Your task to perform on an android device: add a label to a message in the gmail app Image 0: 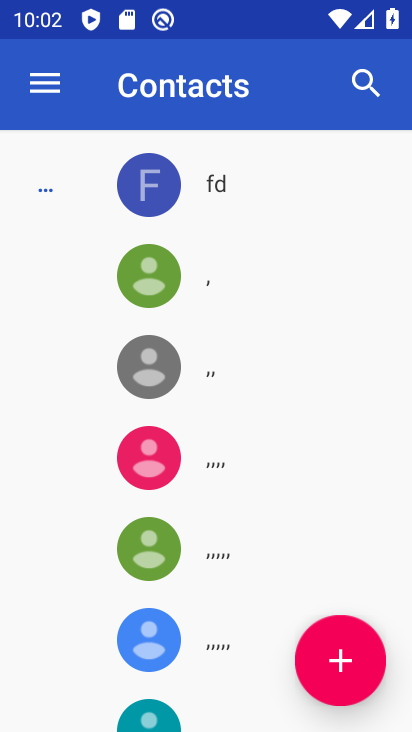
Step 0: press back button
Your task to perform on an android device: add a label to a message in the gmail app Image 1: 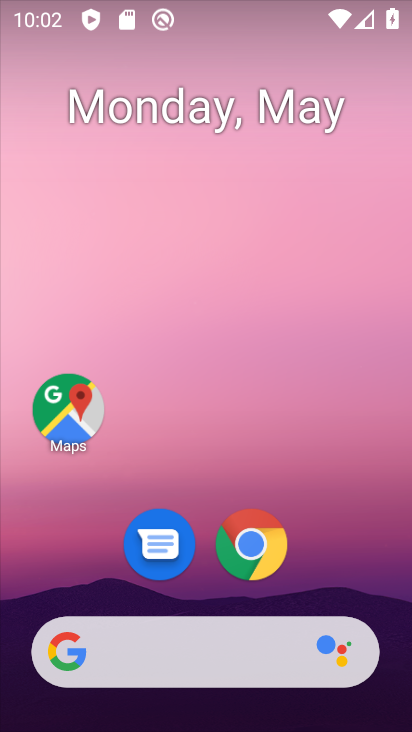
Step 1: drag from (362, 710) to (157, 118)
Your task to perform on an android device: add a label to a message in the gmail app Image 2: 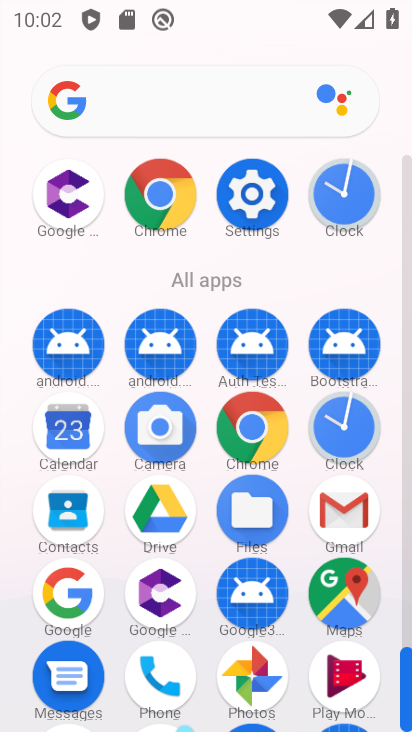
Step 2: click (352, 507)
Your task to perform on an android device: add a label to a message in the gmail app Image 3: 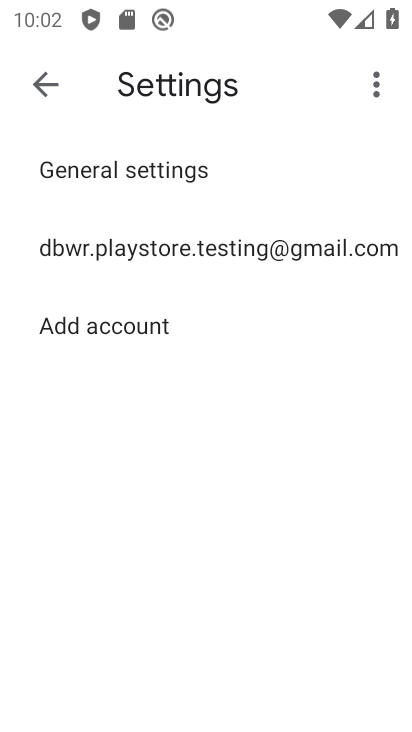
Step 3: click (31, 77)
Your task to perform on an android device: add a label to a message in the gmail app Image 4: 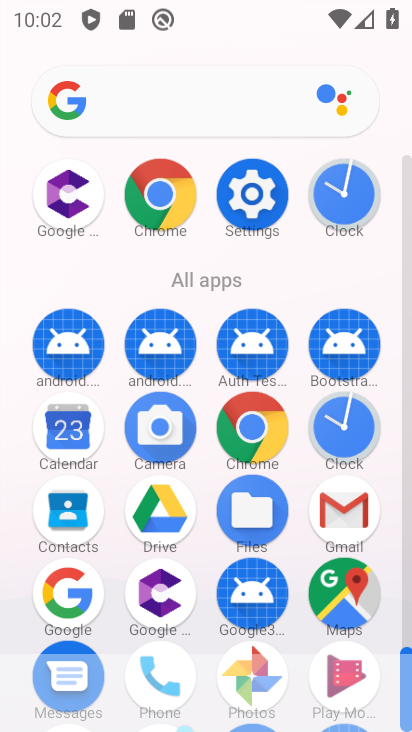
Step 4: click (340, 517)
Your task to perform on an android device: add a label to a message in the gmail app Image 5: 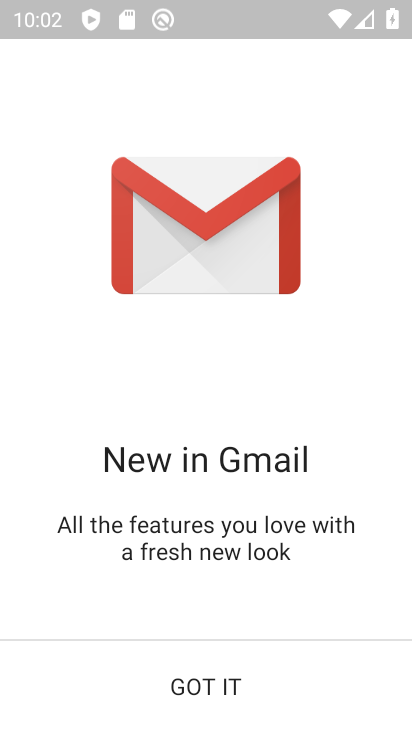
Step 5: click (217, 671)
Your task to perform on an android device: add a label to a message in the gmail app Image 6: 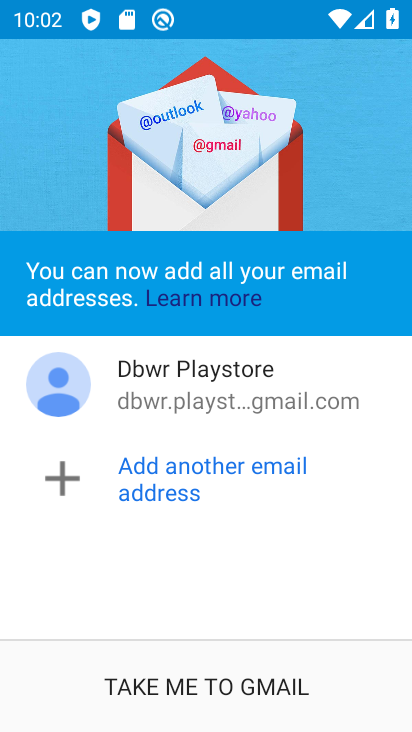
Step 6: click (212, 673)
Your task to perform on an android device: add a label to a message in the gmail app Image 7: 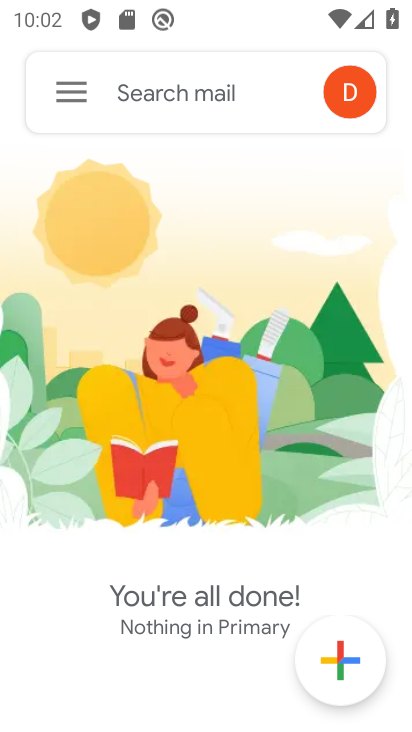
Step 7: click (58, 107)
Your task to perform on an android device: add a label to a message in the gmail app Image 8: 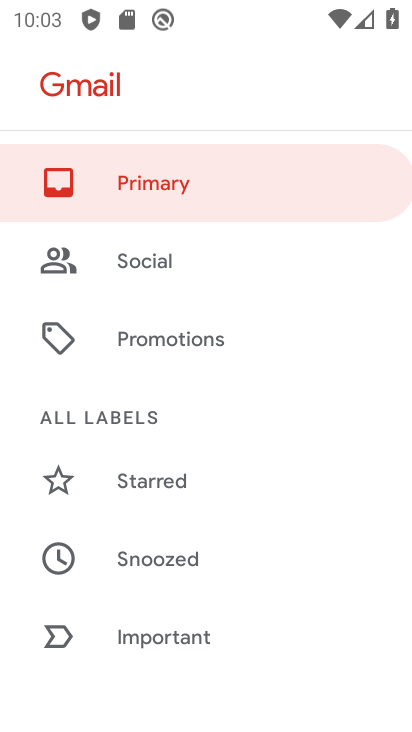
Step 8: drag from (174, 444) to (129, 43)
Your task to perform on an android device: add a label to a message in the gmail app Image 9: 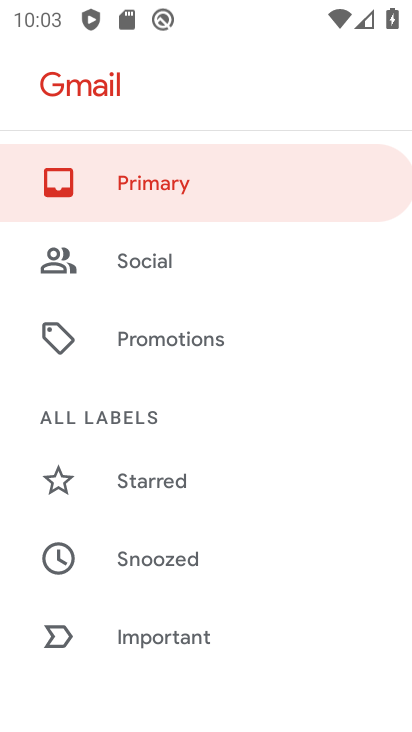
Step 9: drag from (255, 505) to (195, 132)
Your task to perform on an android device: add a label to a message in the gmail app Image 10: 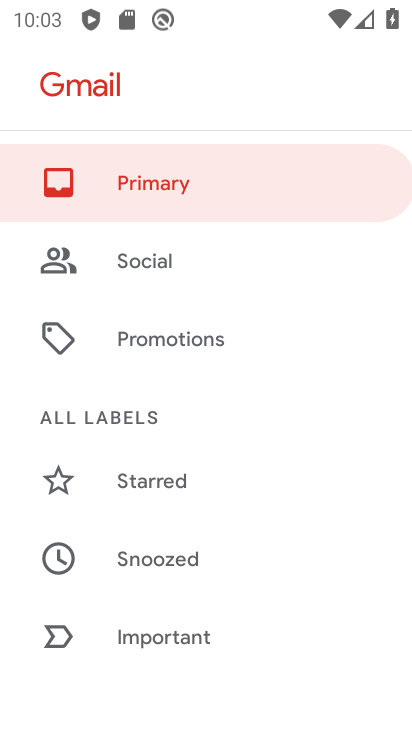
Step 10: drag from (234, 582) to (228, 131)
Your task to perform on an android device: add a label to a message in the gmail app Image 11: 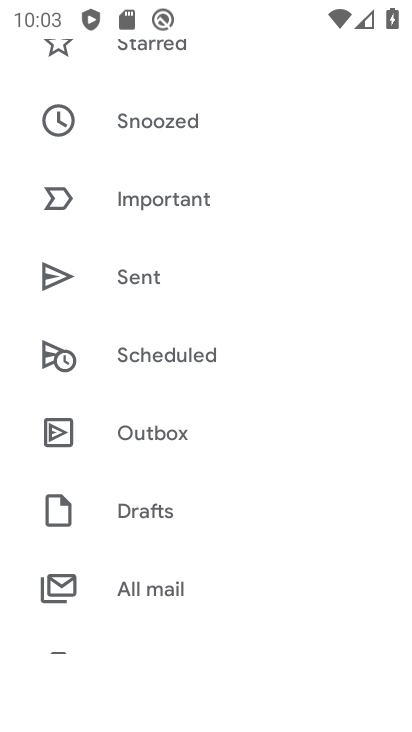
Step 11: click (160, 601)
Your task to perform on an android device: add a label to a message in the gmail app Image 12: 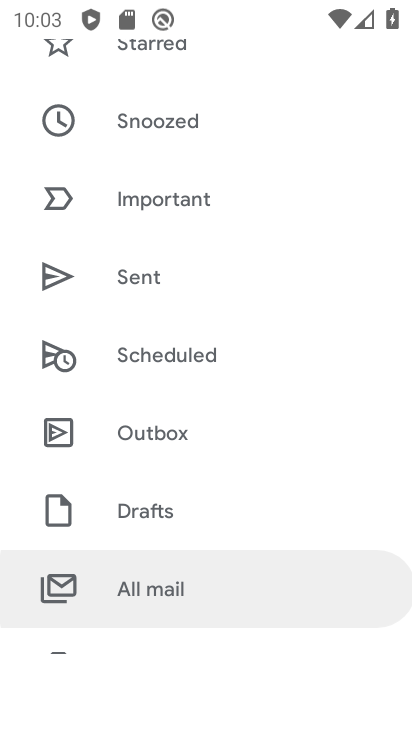
Step 12: click (156, 596)
Your task to perform on an android device: add a label to a message in the gmail app Image 13: 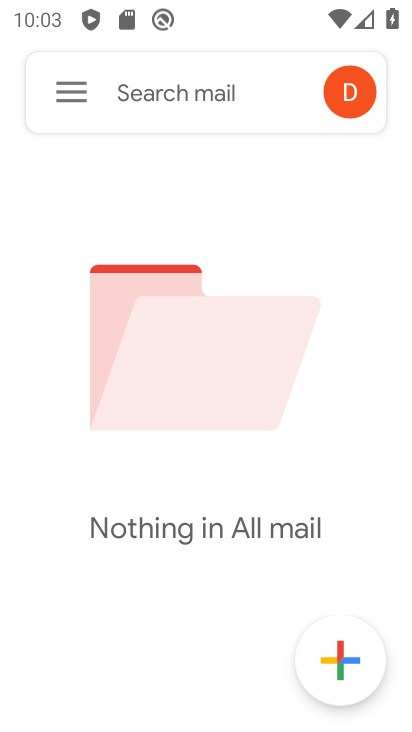
Step 13: task complete